Your task to perform on an android device: Open Chrome and go to settings Image 0: 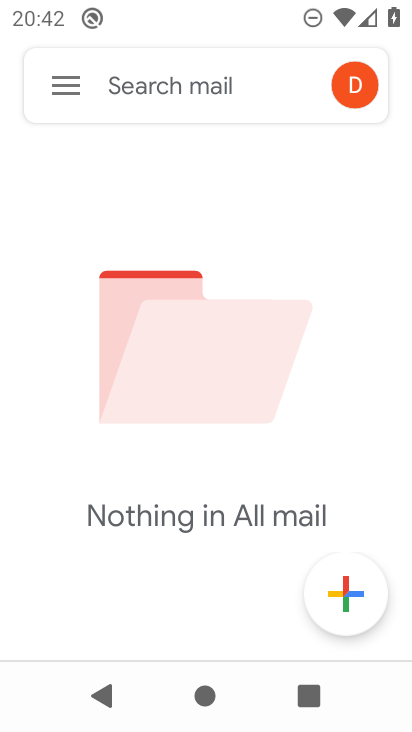
Step 0: press home button
Your task to perform on an android device: Open Chrome and go to settings Image 1: 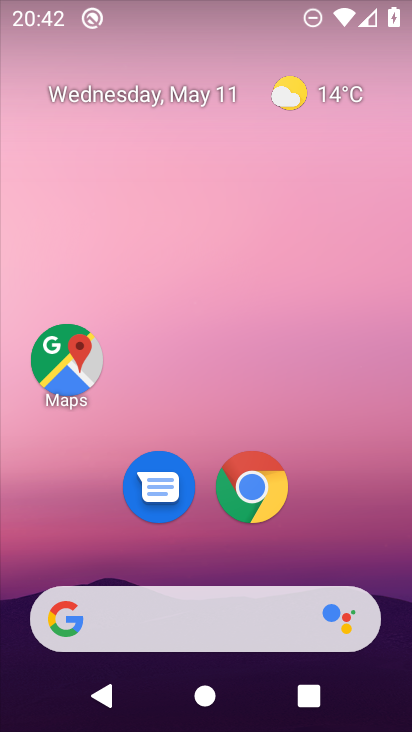
Step 1: click (279, 489)
Your task to perform on an android device: Open Chrome and go to settings Image 2: 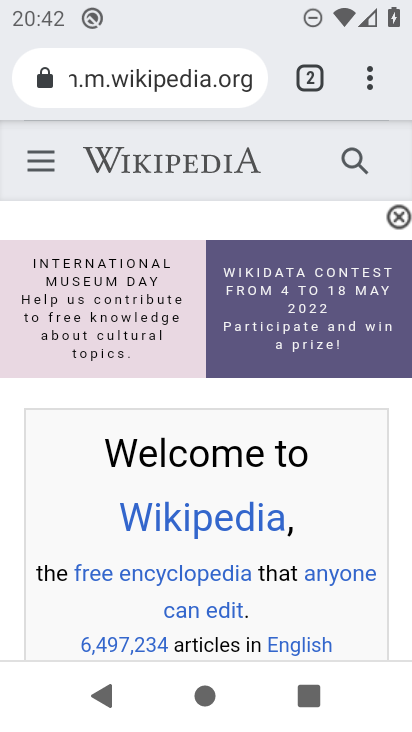
Step 2: click (371, 81)
Your task to perform on an android device: Open Chrome and go to settings Image 3: 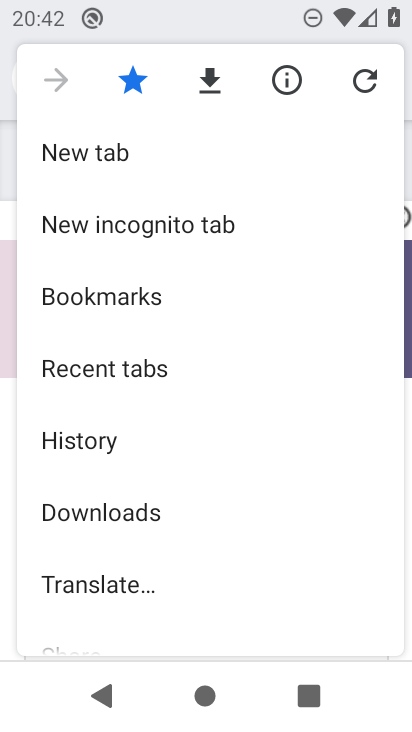
Step 3: drag from (157, 573) to (231, 236)
Your task to perform on an android device: Open Chrome and go to settings Image 4: 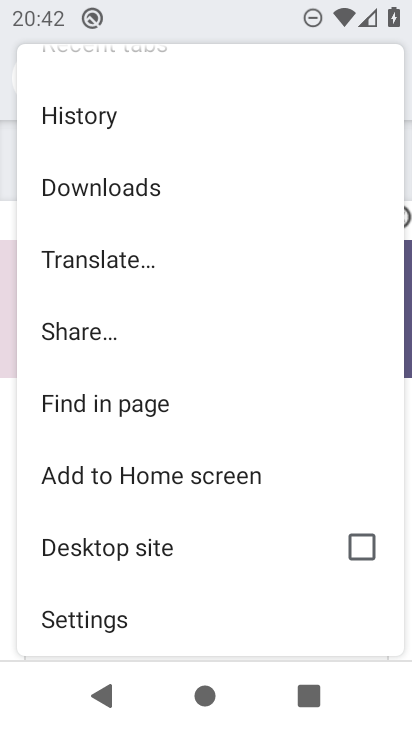
Step 4: click (90, 616)
Your task to perform on an android device: Open Chrome and go to settings Image 5: 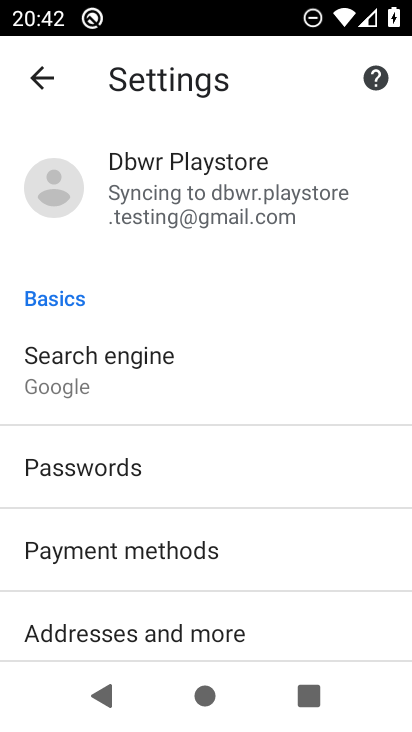
Step 5: task complete